Your task to perform on an android device: Open display settings Image 0: 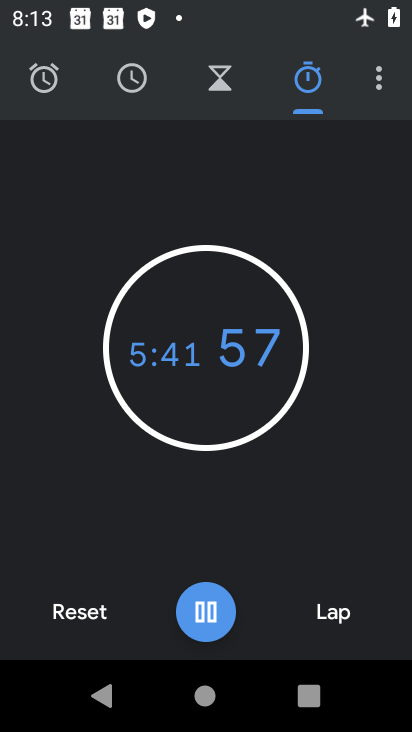
Step 0: press home button
Your task to perform on an android device: Open display settings Image 1: 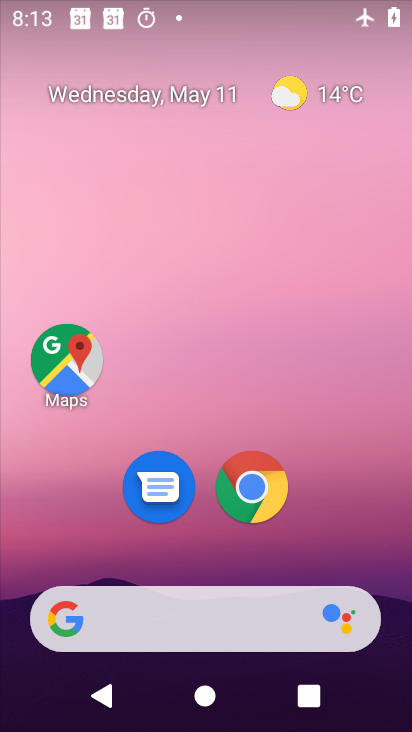
Step 1: drag from (228, 724) to (232, 181)
Your task to perform on an android device: Open display settings Image 2: 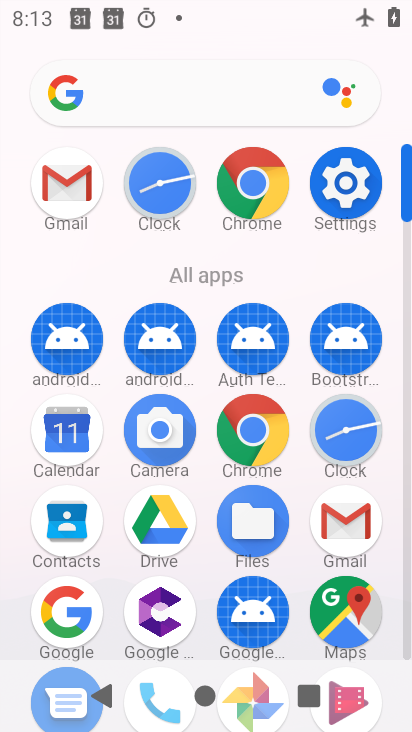
Step 2: click (345, 183)
Your task to perform on an android device: Open display settings Image 3: 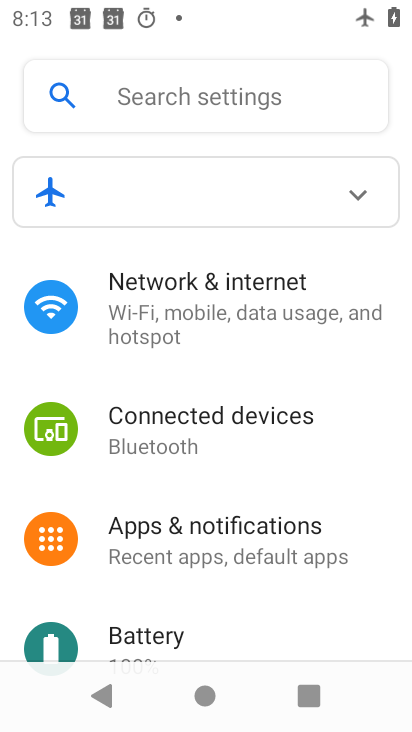
Step 3: drag from (204, 612) to (208, 233)
Your task to perform on an android device: Open display settings Image 4: 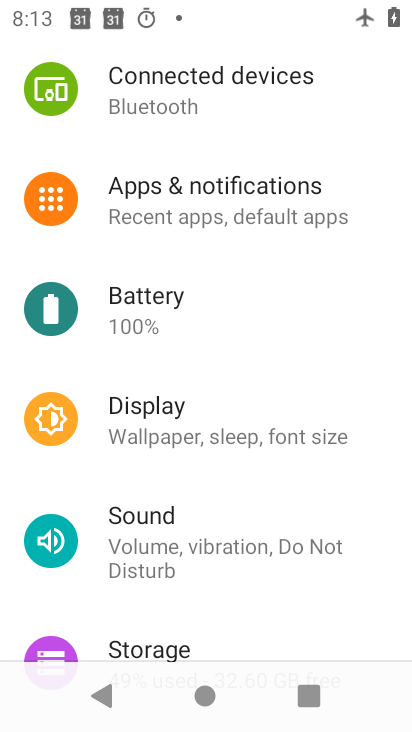
Step 4: click (155, 430)
Your task to perform on an android device: Open display settings Image 5: 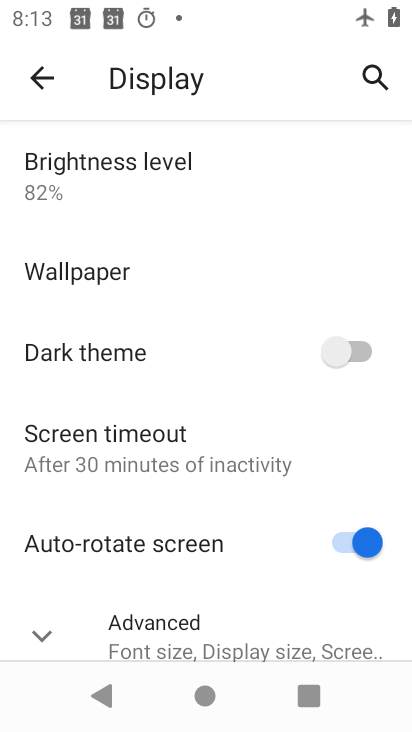
Step 5: task complete